Your task to perform on an android device: uninstall "Reddit" Image 0: 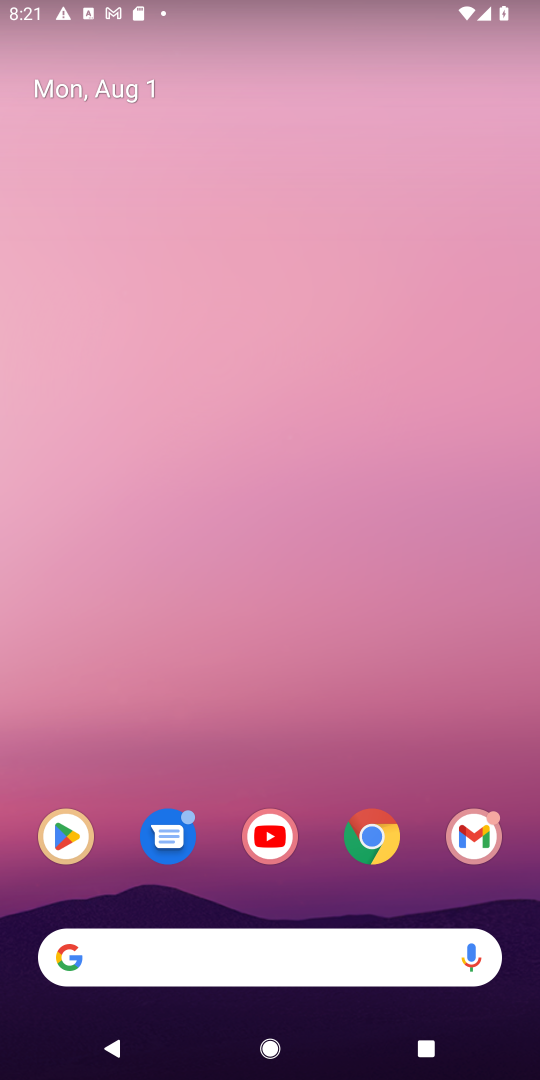
Step 0: press home button
Your task to perform on an android device: uninstall "Reddit" Image 1: 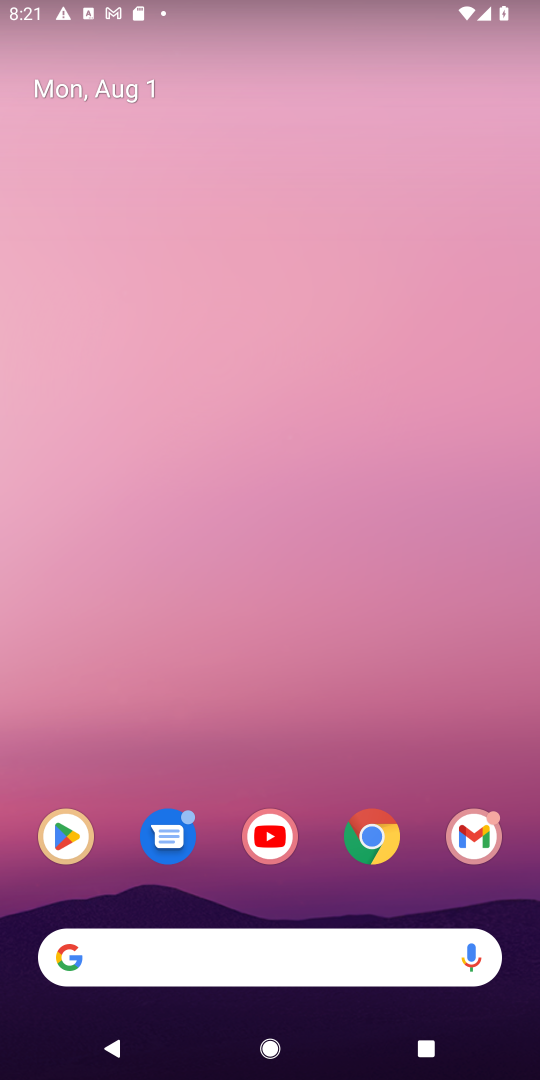
Step 1: click (67, 834)
Your task to perform on an android device: uninstall "Reddit" Image 2: 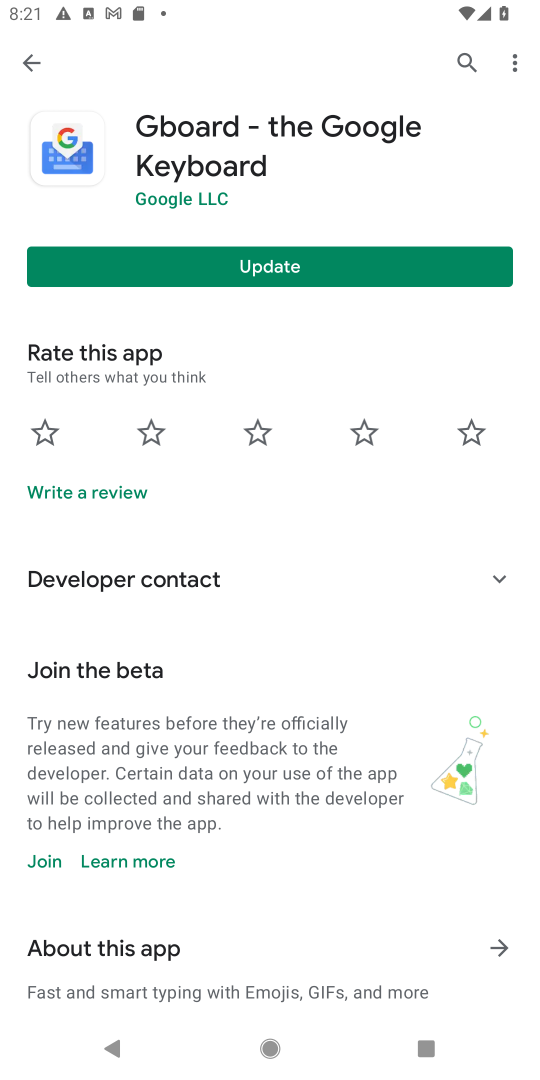
Step 2: click (472, 57)
Your task to perform on an android device: uninstall "Reddit" Image 3: 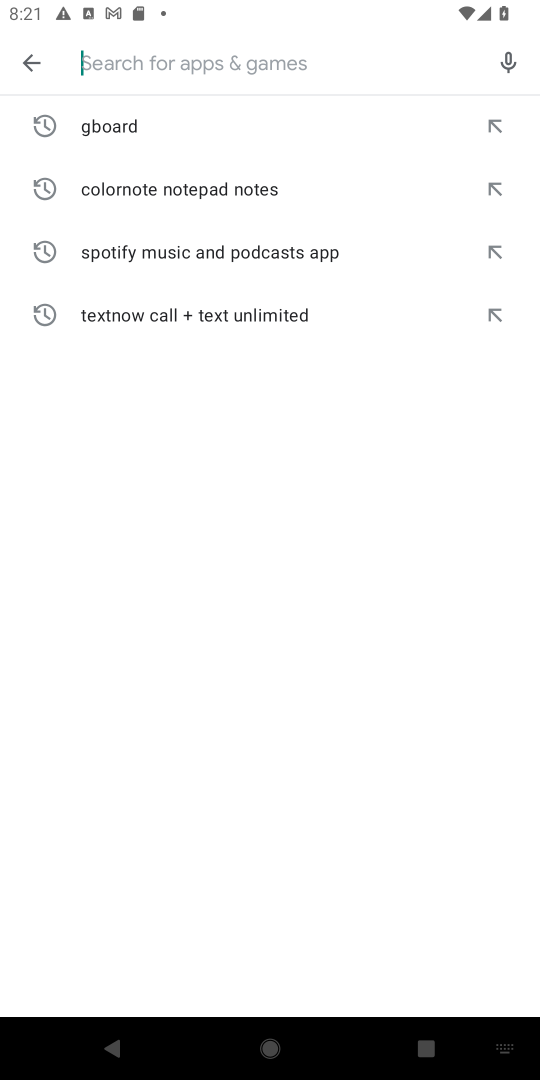
Step 3: type "Reddit"
Your task to perform on an android device: uninstall "Reddit" Image 4: 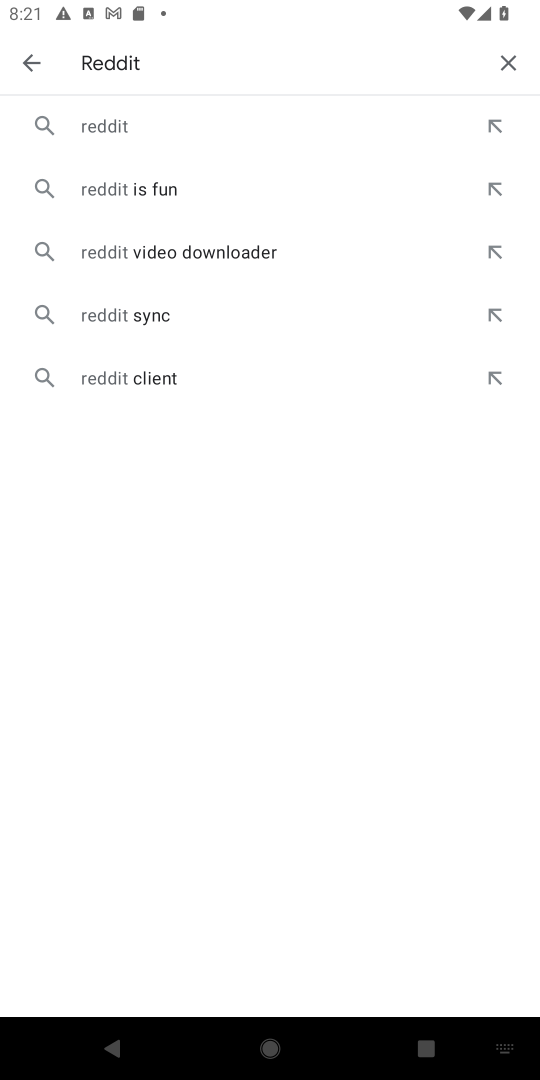
Step 4: click (118, 126)
Your task to perform on an android device: uninstall "Reddit" Image 5: 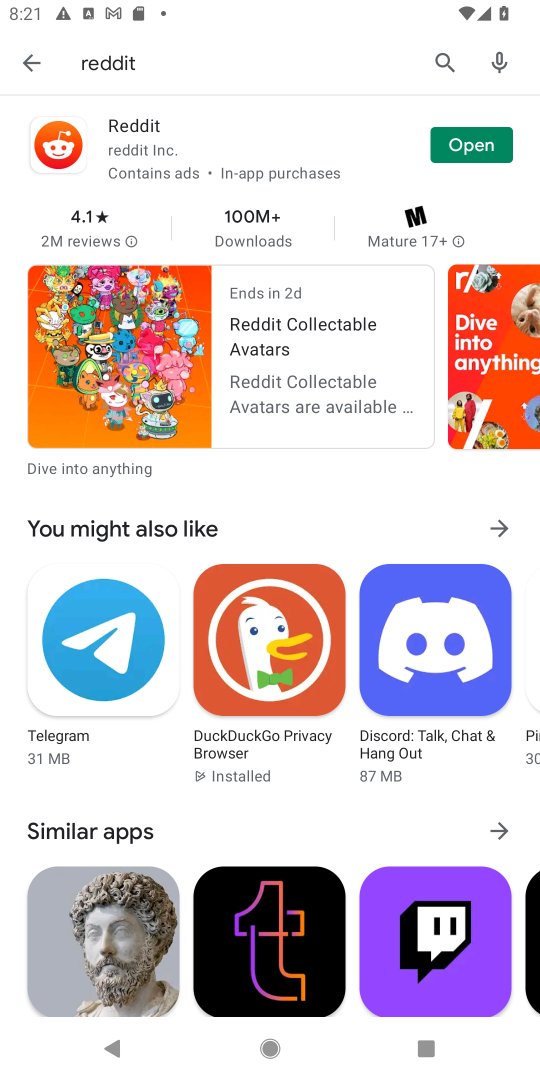
Step 5: click (125, 137)
Your task to perform on an android device: uninstall "Reddit" Image 6: 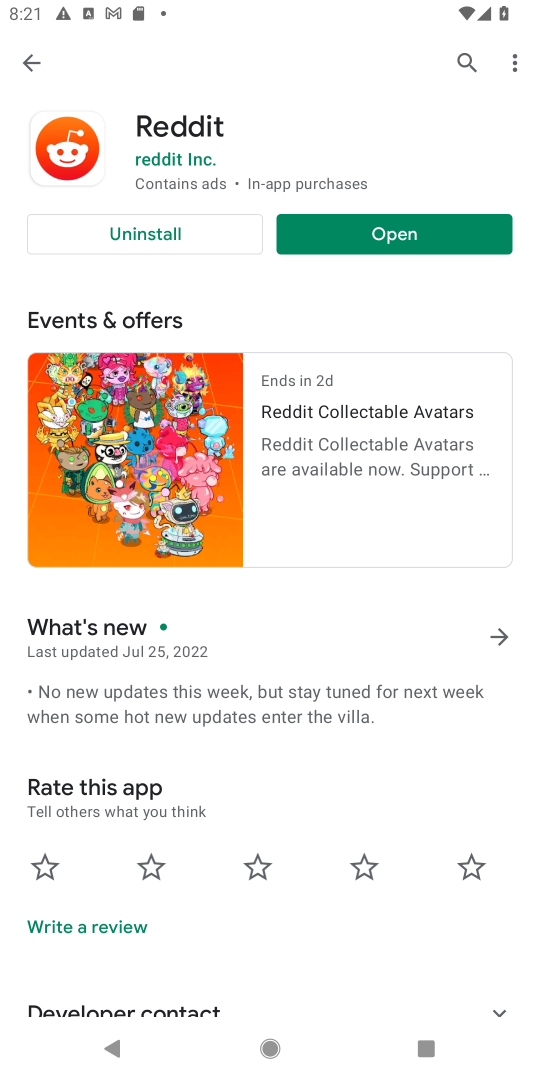
Step 6: click (166, 225)
Your task to perform on an android device: uninstall "Reddit" Image 7: 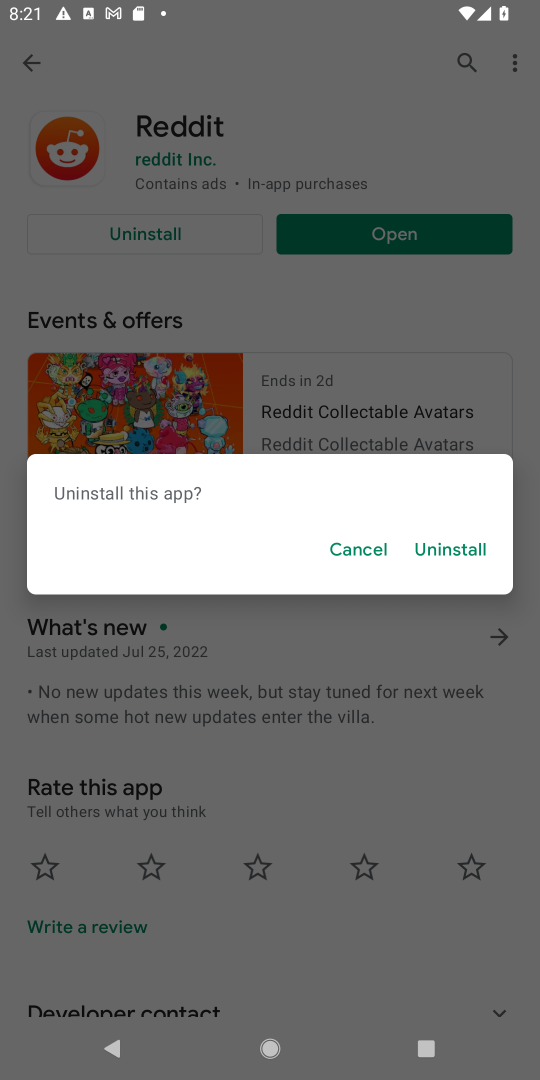
Step 7: click (439, 553)
Your task to perform on an android device: uninstall "Reddit" Image 8: 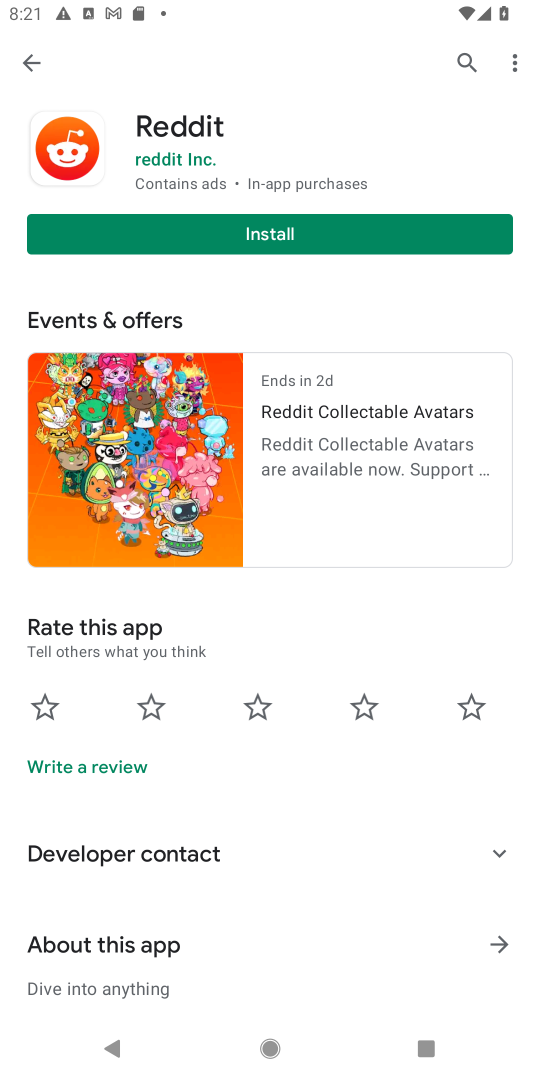
Step 8: task complete